Your task to perform on an android device: clear history in the chrome app Image 0: 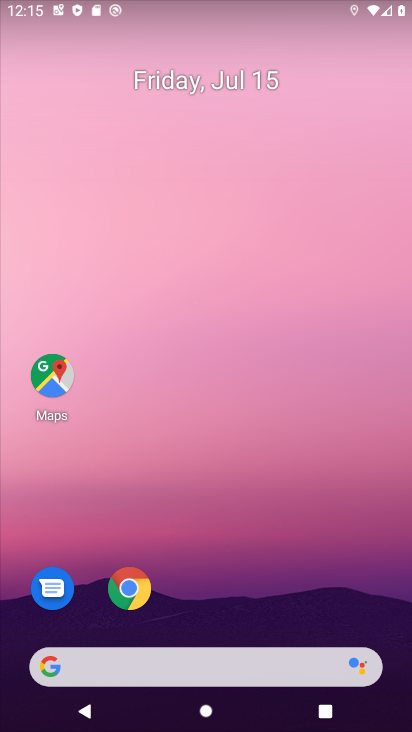
Step 0: click (129, 591)
Your task to perform on an android device: clear history in the chrome app Image 1: 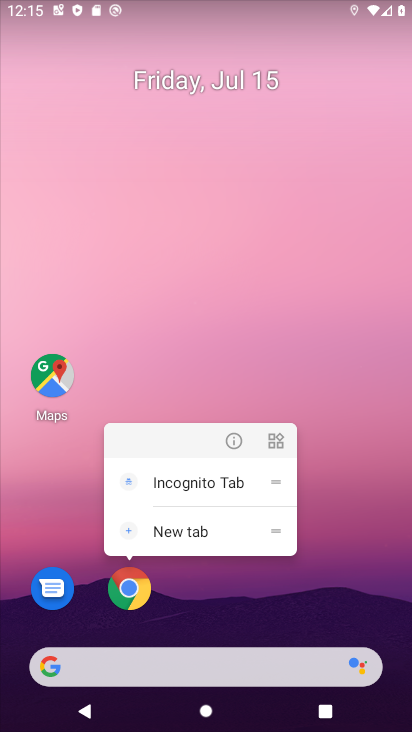
Step 1: click (129, 591)
Your task to perform on an android device: clear history in the chrome app Image 2: 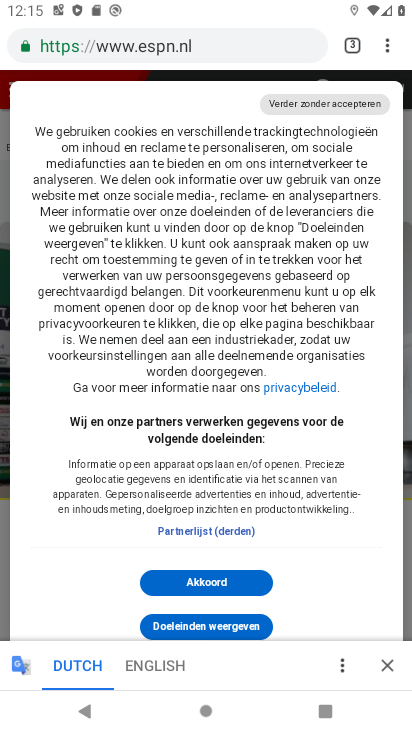
Step 2: click (387, 40)
Your task to perform on an android device: clear history in the chrome app Image 3: 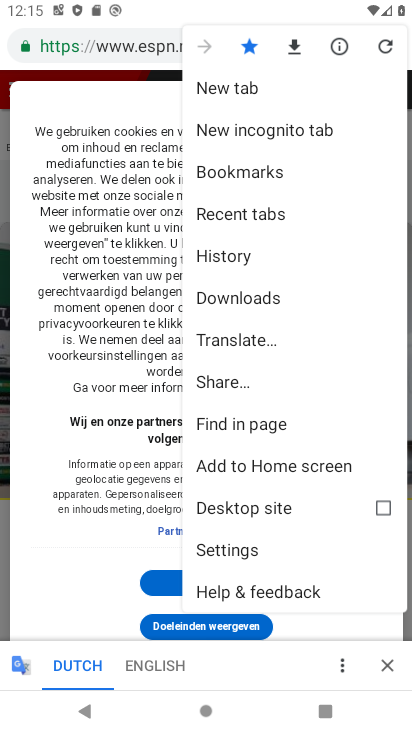
Step 3: click (242, 259)
Your task to perform on an android device: clear history in the chrome app Image 4: 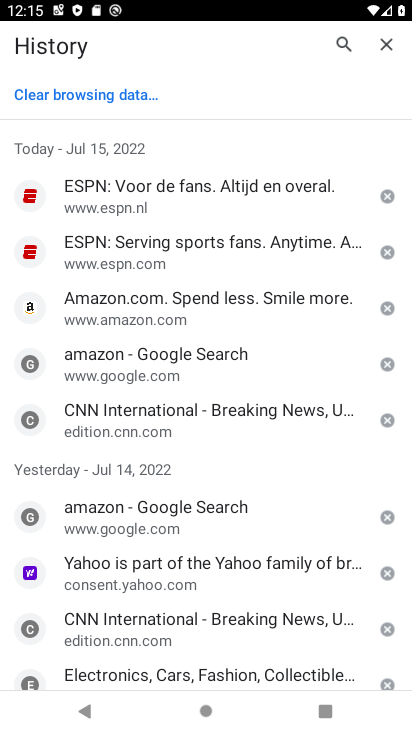
Step 4: click (96, 86)
Your task to perform on an android device: clear history in the chrome app Image 5: 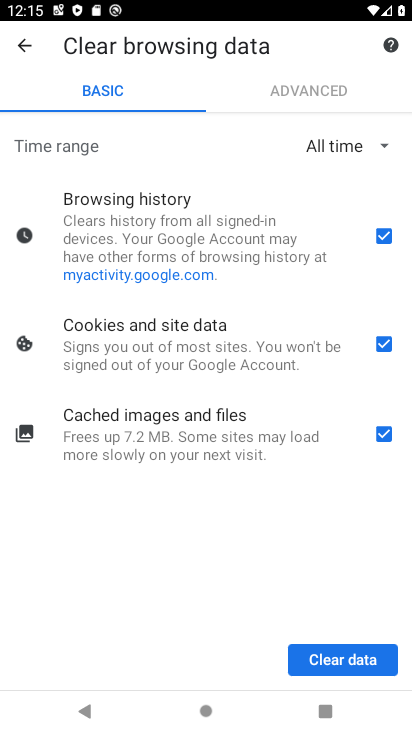
Step 5: click (355, 655)
Your task to perform on an android device: clear history in the chrome app Image 6: 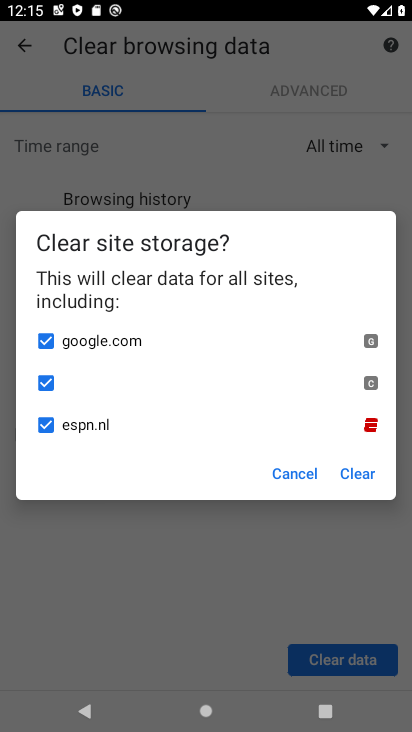
Step 6: click (361, 474)
Your task to perform on an android device: clear history in the chrome app Image 7: 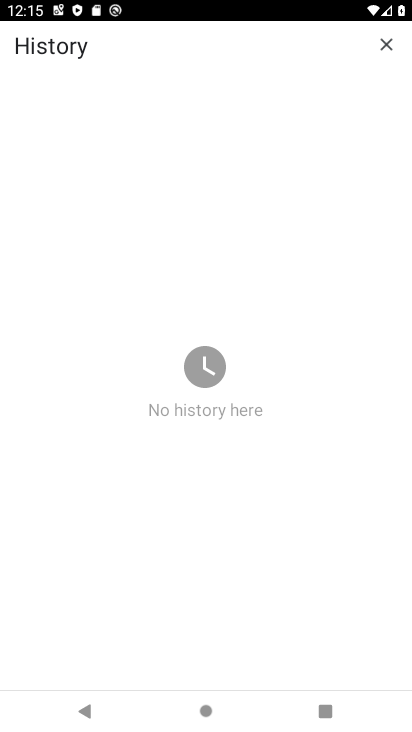
Step 7: task complete